Your task to perform on an android device: Show me popular games on the Play Store Image 0: 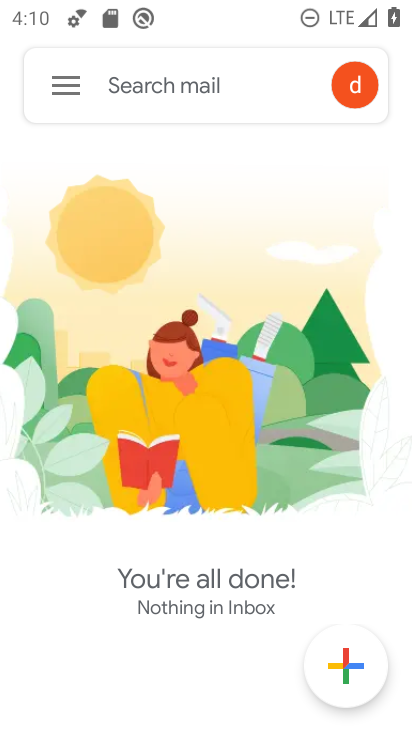
Step 0: press home button
Your task to perform on an android device: Show me popular games on the Play Store Image 1: 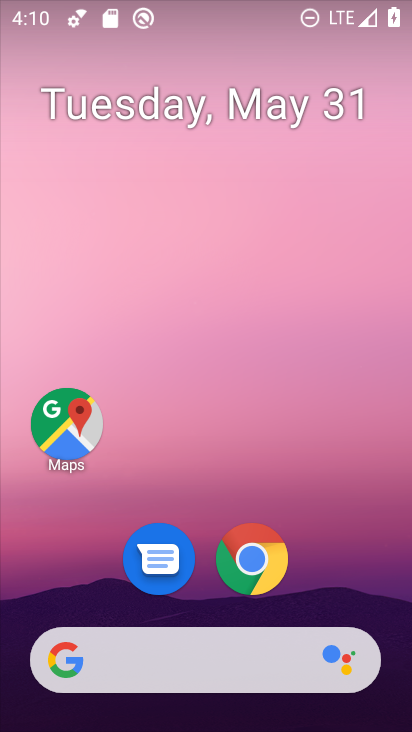
Step 1: drag from (223, 715) to (238, 115)
Your task to perform on an android device: Show me popular games on the Play Store Image 2: 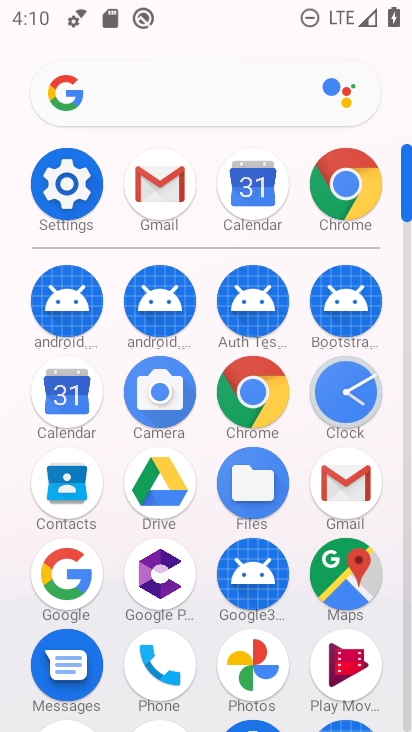
Step 2: drag from (203, 698) to (197, 314)
Your task to perform on an android device: Show me popular games on the Play Store Image 3: 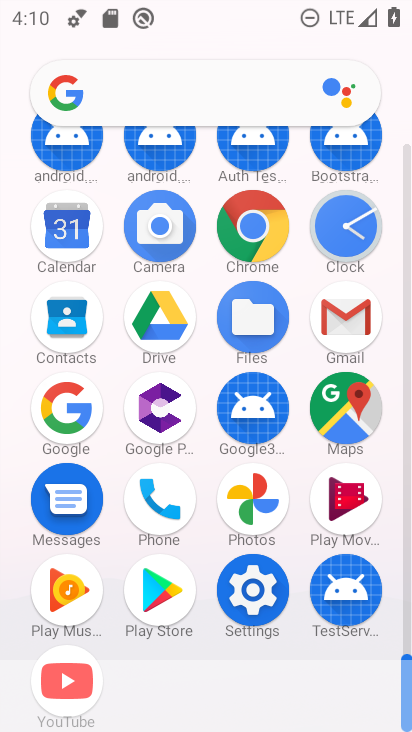
Step 3: click (163, 603)
Your task to perform on an android device: Show me popular games on the Play Store Image 4: 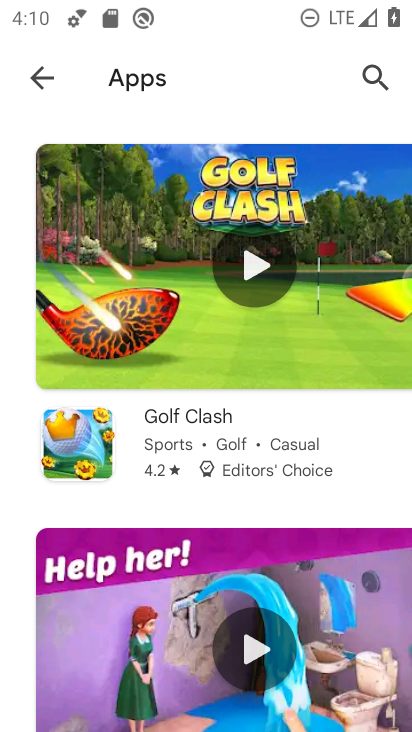
Step 4: click (45, 77)
Your task to perform on an android device: Show me popular games on the Play Store Image 5: 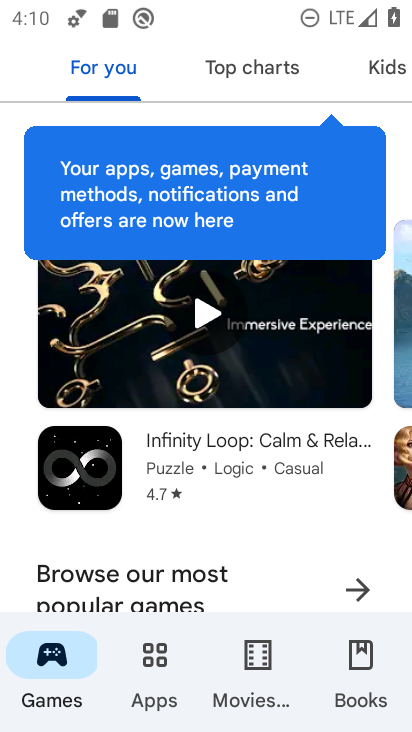
Step 5: drag from (234, 596) to (235, 374)
Your task to perform on an android device: Show me popular games on the Play Store Image 6: 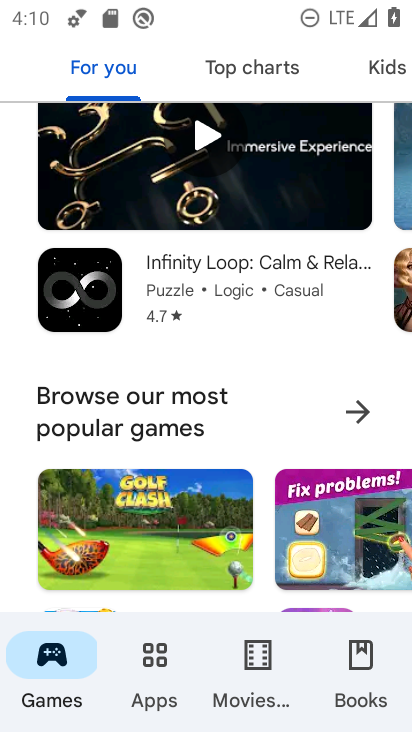
Step 6: drag from (235, 310) to (235, 260)
Your task to perform on an android device: Show me popular games on the Play Store Image 7: 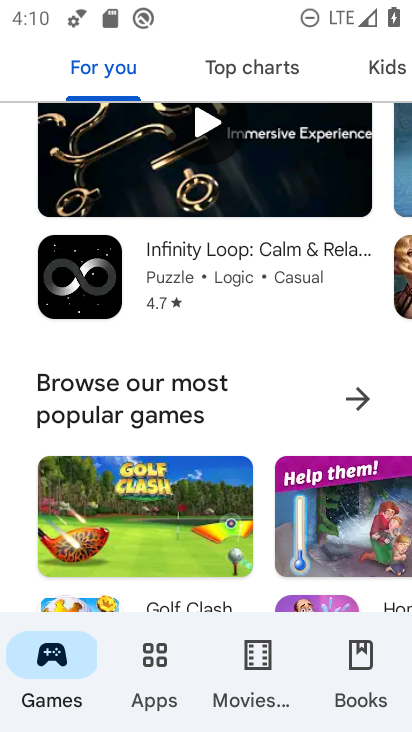
Step 7: click (181, 391)
Your task to perform on an android device: Show me popular games on the Play Store Image 8: 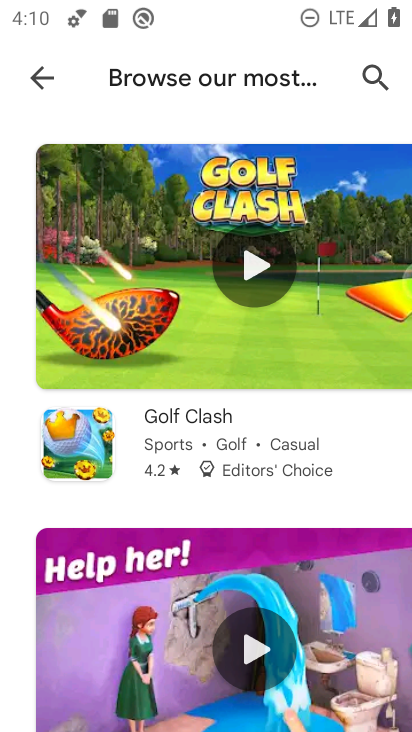
Step 8: task complete